Your task to perform on an android device: Open Android settings Image 0: 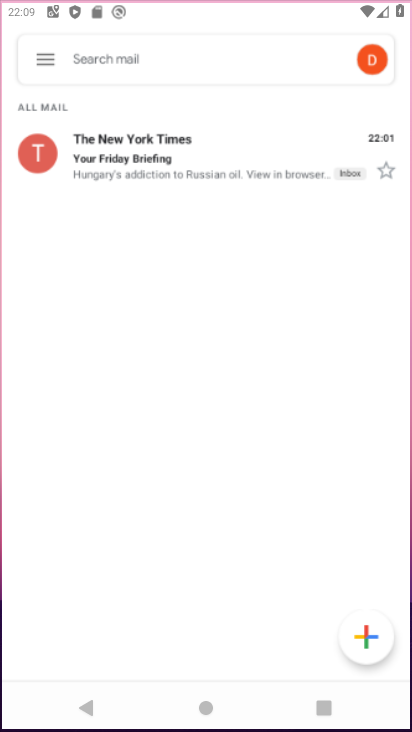
Step 0: press home button
Your task to perform on an android device: Open Android settings Image 1: 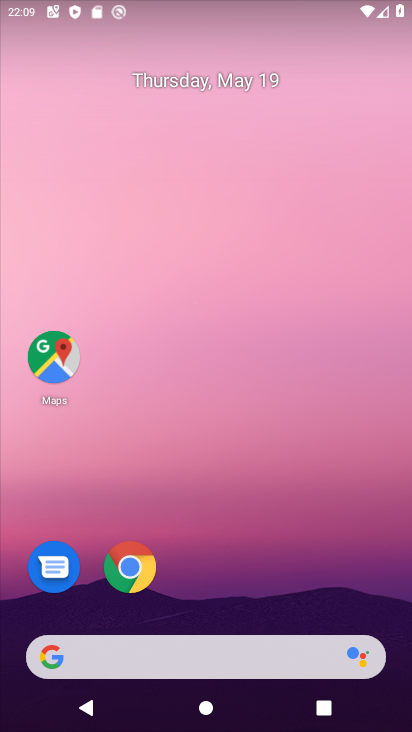
Step 1: drag from (212, 606) to (272, 243)
Your task to perform on an android device: Open Android settings Image 2: 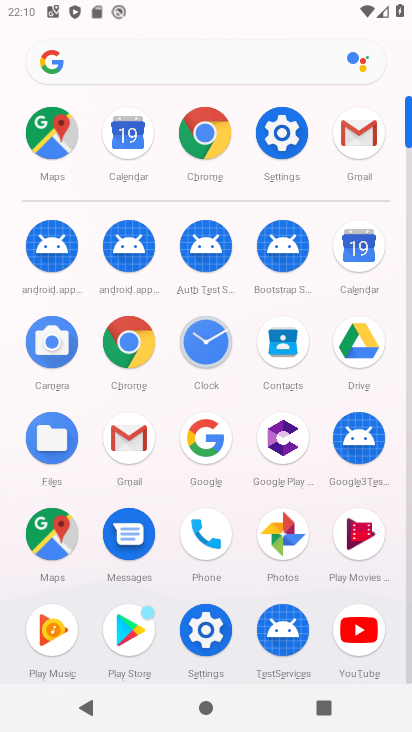
Step 2: click (206, 623)
Your task to perform on an android device: Open Android settings Image 3: 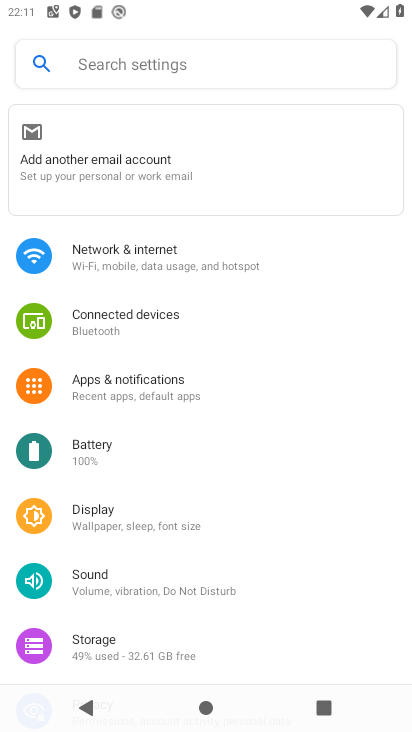
Step 3: drag from (164, 633) to (192, 296)
Your task to perform on an android device: Open Android settings Image 4: 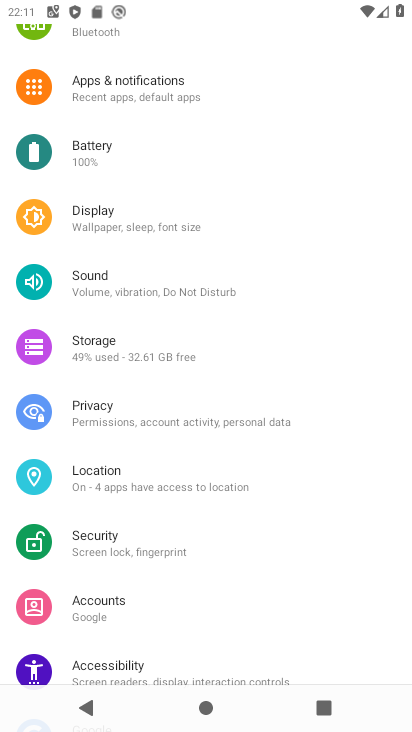
Step 4: drag from (145, 649) to (187, 411)
Your task to perform on an android device: Open Android settings Image 5: 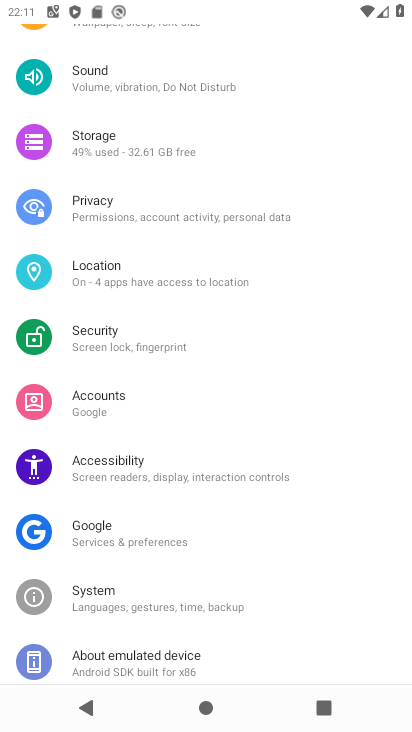
Step 5: click (139, 656)
Your task to perform on an android device: Open Android settings Image 6: 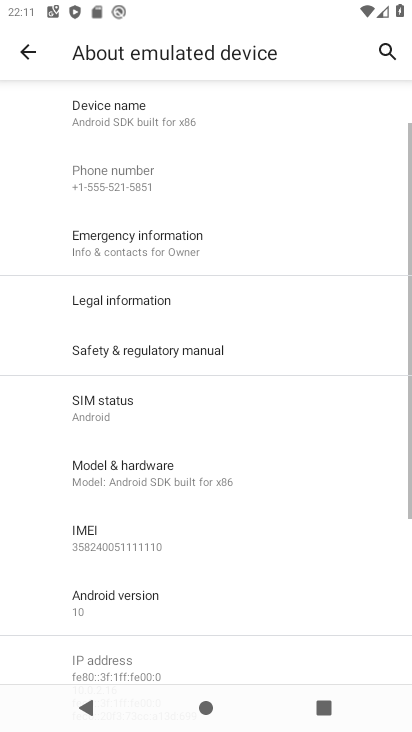
Step 6: click (146, 626)
Your task to perform on an android device: Open Android settings Image 7: 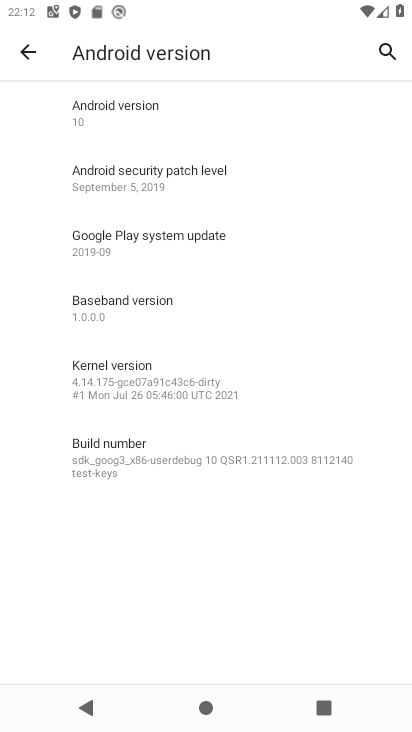
Step 7: task complete